Your task to perform on an android device: Open display settings Image 0: 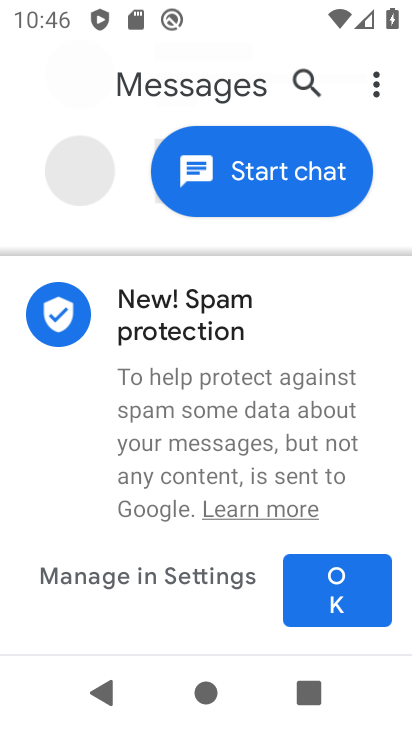
Step 0: press home button
Your task to perform on an android device: Open display settings Image 1: 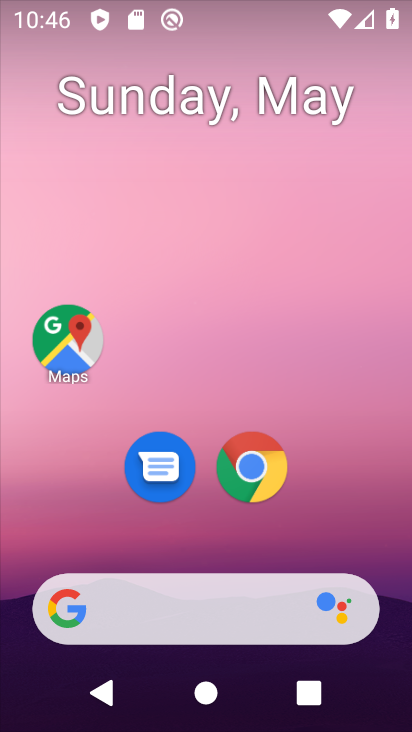
Step 1: drag from (366, 561) to (351, 0)
Your task to perform on an android device: Open display settings Image 2: 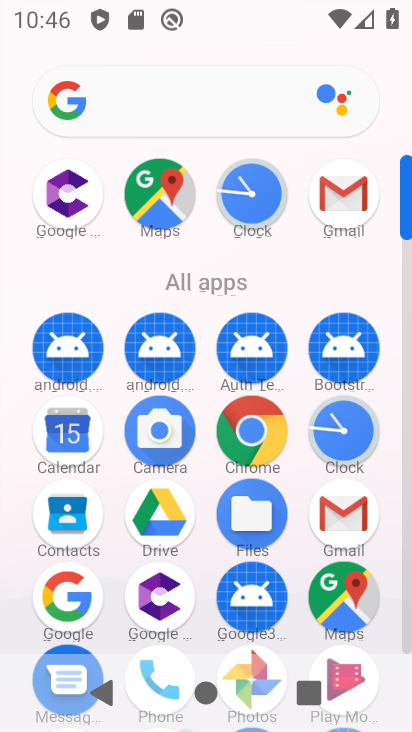
Step 2: drag from (405, 535) to (411, 500)
Your task to perform on an android device: Open display settings Image 3: 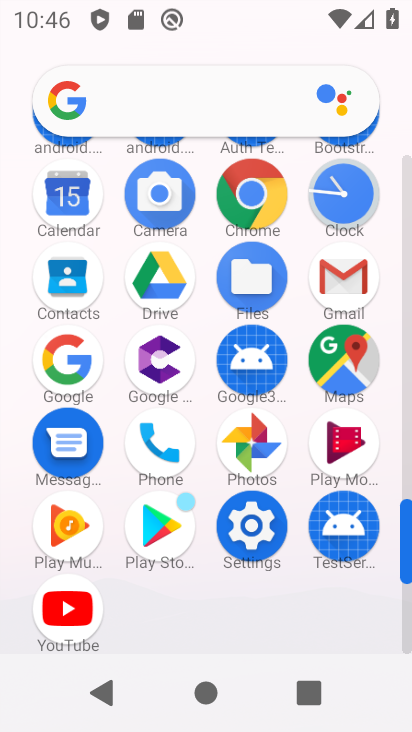
Step 3: click (255, 533)
Your task to perform on an android device: Open display settings Image 4: 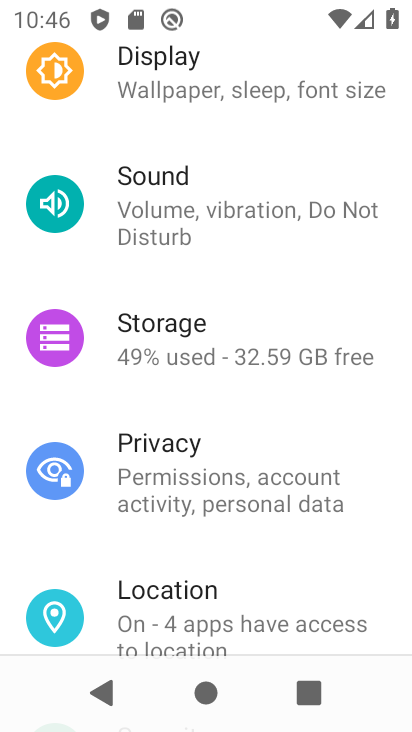
Step 4: click (167, 93)
Your task to perform on an android device: Open display settings Image 5: 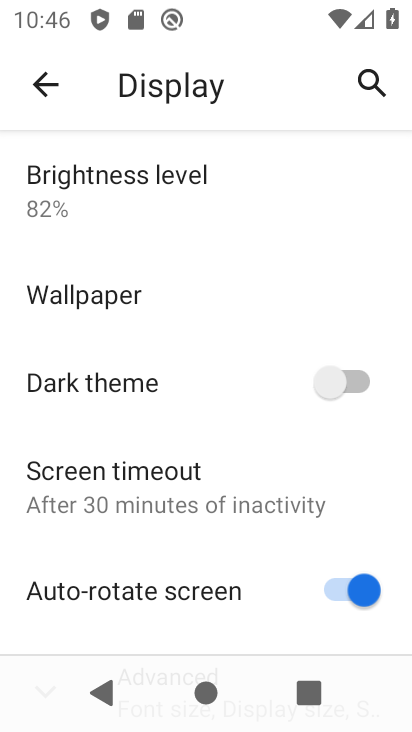
Step 5: task complete